Your task to perform on an android device: Set the phone to "Do not disturb". Image 0: 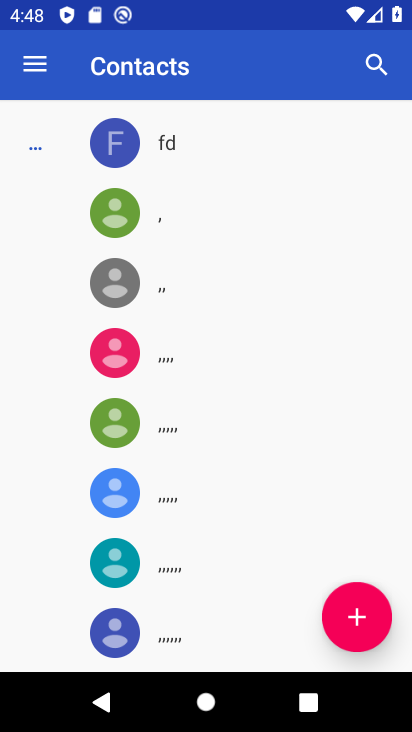
Step 0: press home button
Your task to perform on an android device: Set the phone to "Do not disturb". Image 1: 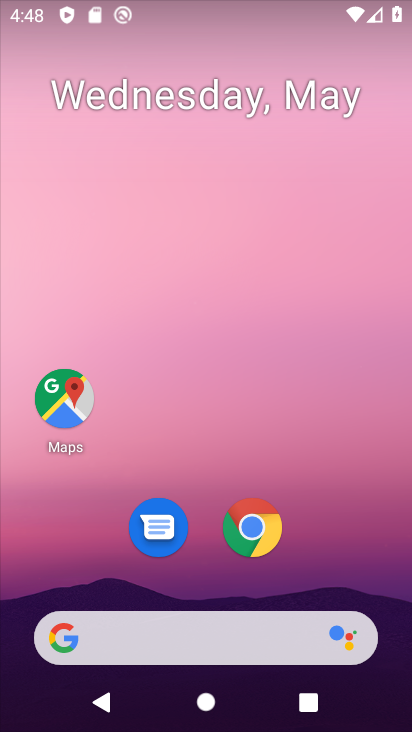
Step 1: drag from (204, 569) to (224, 253)
Your task to perform on an android device: Set the phone to "Do not disturb". Image 2: 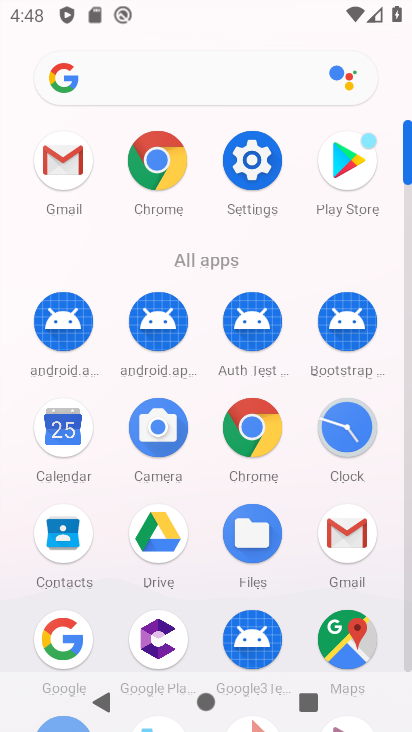
Step 2: click (254, 163)
Your task to perform on an android device: Set the phone to "Do not disturb". Image 3: 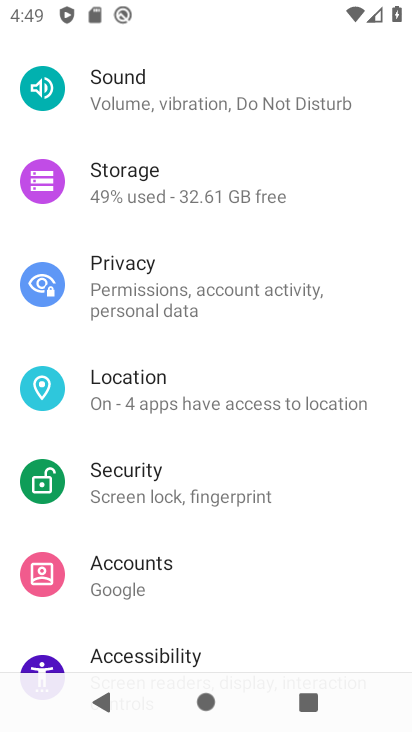
Step 3: click (146, 105)
Your task to perform on an android device: Set the phone to "Do not disturb". Image 4: 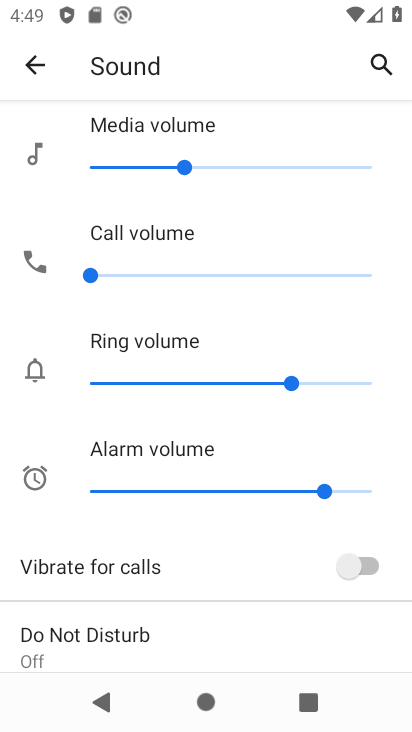
Step 4: task complete